Your task to perform on an android device: allow cookies in the chrome app Image 0: 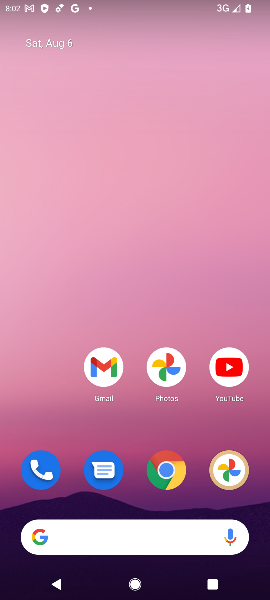
Step 0: click (165, 472)
Your task to perform on an android device: allow cookies in the chrome app Image 1: 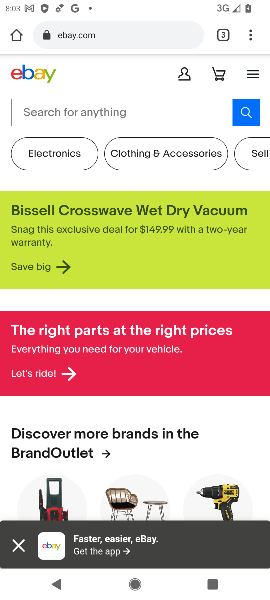
Step 1: click (253, 37)
Your task to perform on an android device: allow cookies in the chrome app Image 2: 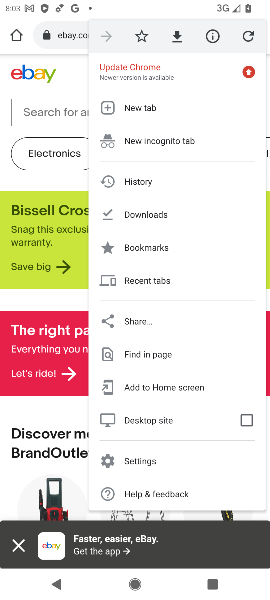
Step 2: click (177, 460)
Your task to perform on an android device: allow cookies in the chrome app Image 3: 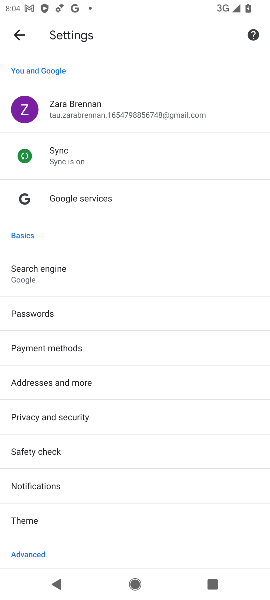
Step 3: drag from (66, 466) to (146, 181)
Your task to perform on an android device: allow cookies in the chrome app Image 4: 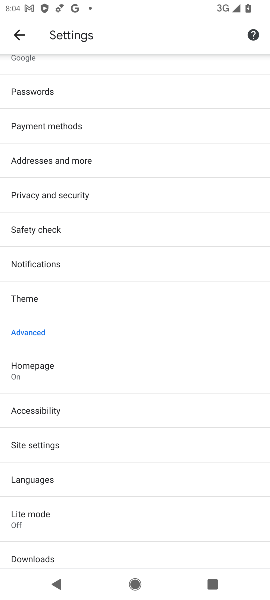
Step 4: click (21, 440)
Your task to perform on an android device: allow cookies in the chrome app Image 5: 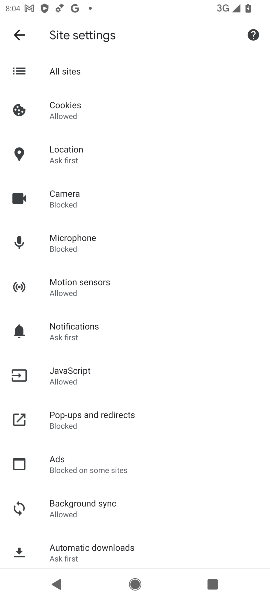
Step 5: click (99, 108)
Your task to perform on an android device: allow cookies in the chrome app Image 6: 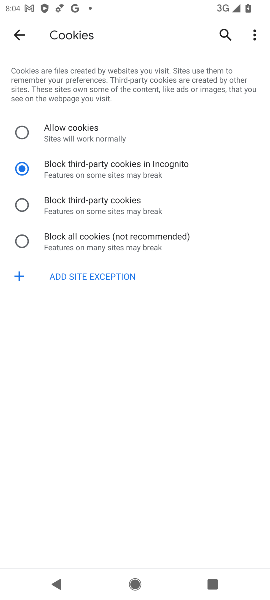
Step 6: click (27, 129)
Your task to perform on an android device: allow cookies in the chrome app Image 7: 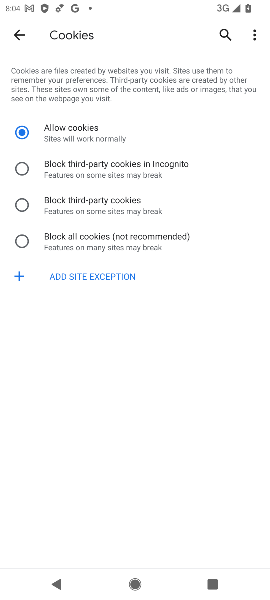
Step 7: task complete